Your task to perform on an android device: Show me the alarms in the clock app Image 0: 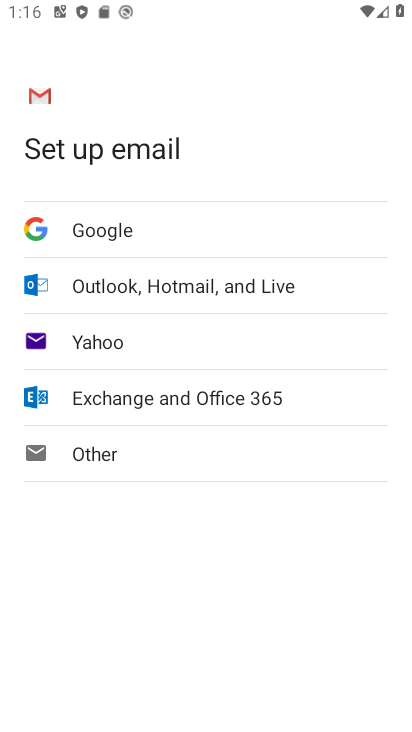
Step 0: press home button
Your task to perform on an android device: Show me the alarms in the clock app Image 1: 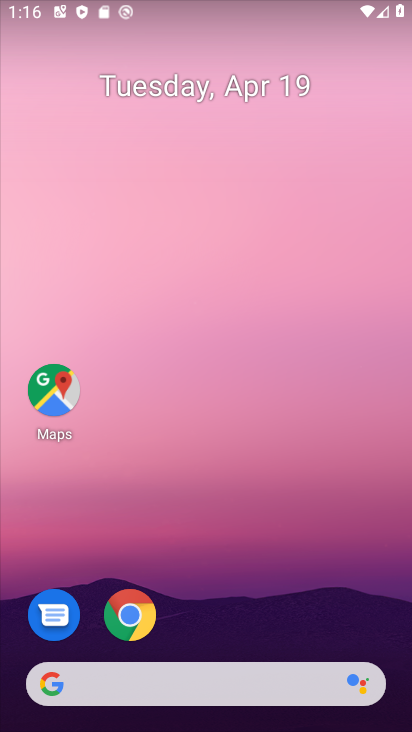
Step 1: drag from (225, 499) to (287, 15)
Your task to perform on an android device: Show me the alarms in the clock app Image 2: 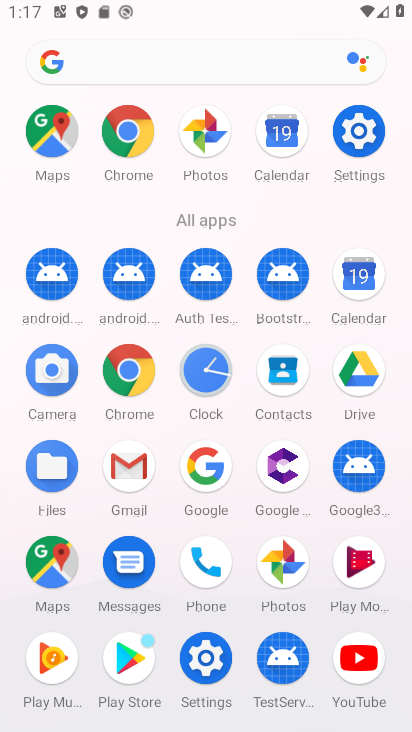
Step 2: click (204, 382)
Your task to perform on an android device: Show me the alarms in the clock app Image 3: 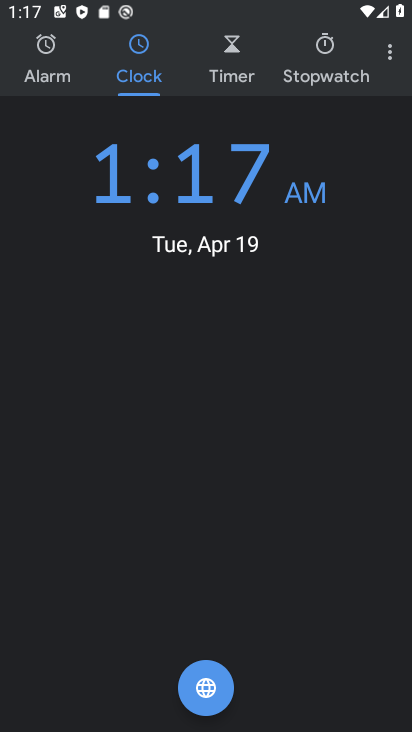
Step 3: click (50, 52)
Your task to perform on an android device: Show me the alarms in the clock app Image 4: 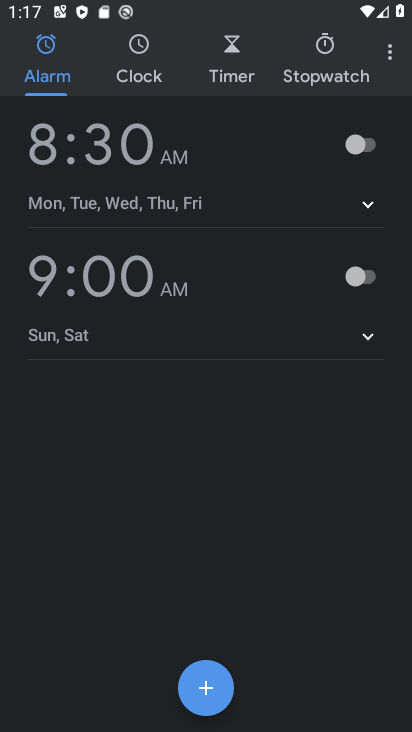
Step 4: task complete